Your task to perform on an android device: see creations saved in the google photos Image 0: 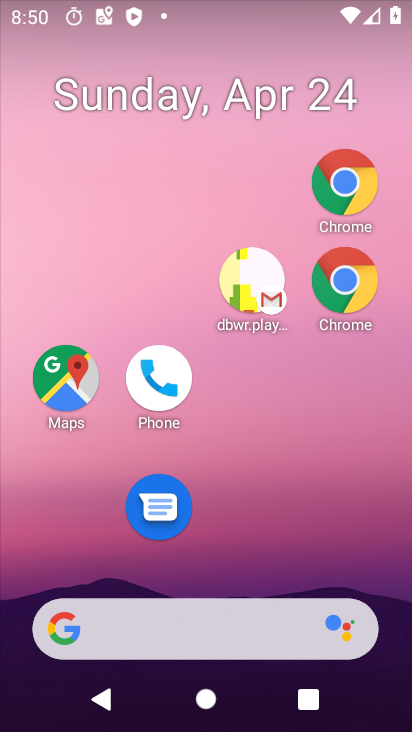
Step 0: drag from (240, 627) to (156, 0)
Your task to perform on an android device: see creations saved in the google photos Image 1: 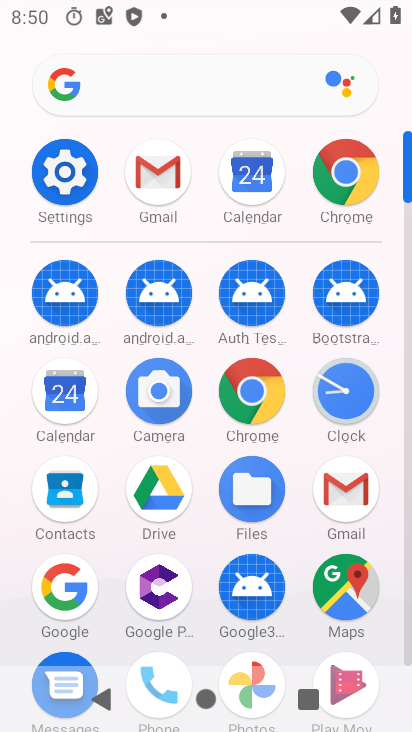
Step 1: drag from (299, 589) to (270, 108)
Your task to perform on an android device: see creations saved in the google photos Image 2: 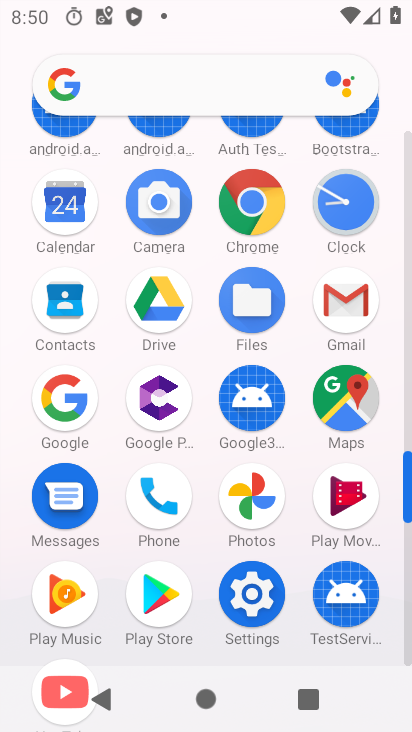
Step 2: click (249, 493)
Your task to perform on an android device: see creations saved in the google photos Image 3: 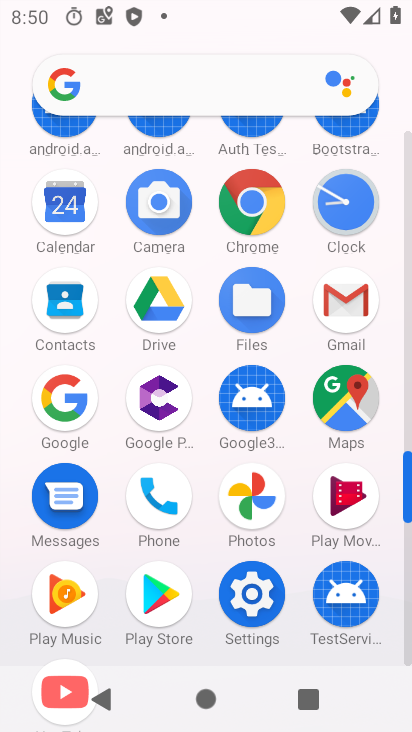
Step 3: click (250, 492)
Your task to perform on an android device: see creations saved in the google photos Image 4: 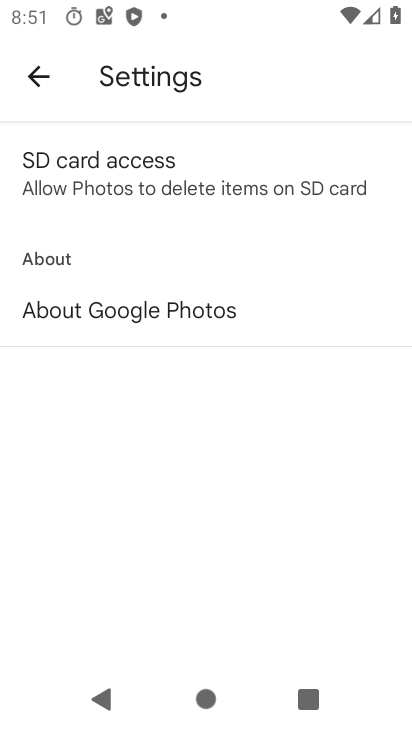
Step 4: click (249, 491)
Your task to perform on an android device: see creations saved in the google photos Image 5: 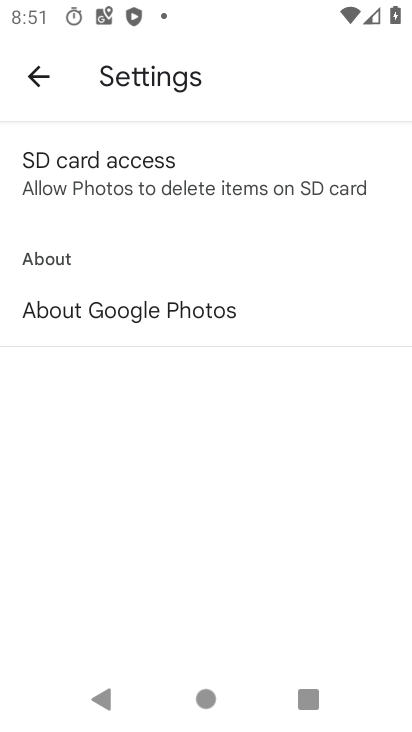
Step 5: click (28, 68)
Your task to perform on an android device: see creations saved in the google photos Image 6: 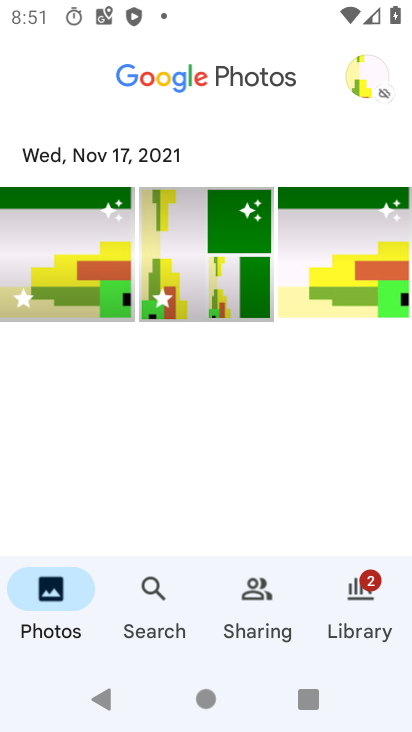
Step 6: task complete